Your task to perform on an android device: When is my next meeting? Image 0: 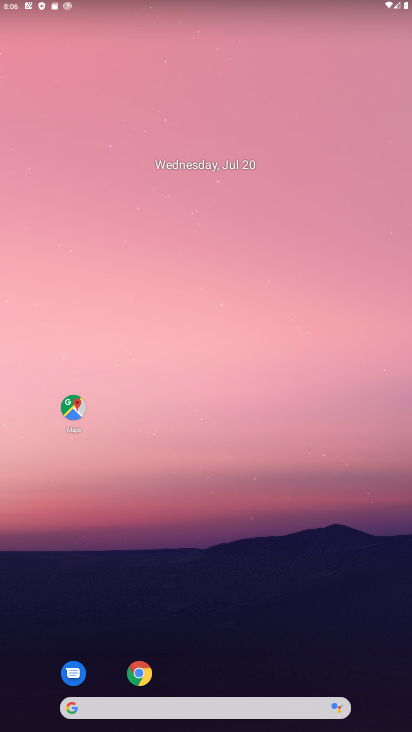
Step 0: drag from (187, 685) to (287, 204)
Your task to perform on an android device: When is my next meeting? Image 1: 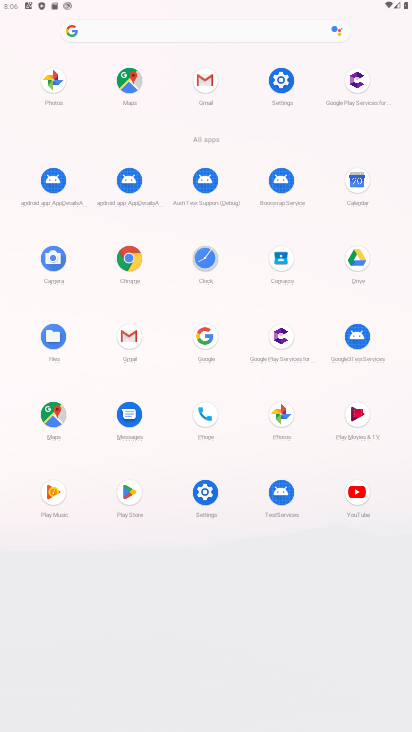
Step 1: drag from (238, 453) to (219, 295)
Your task to perform on an android device: When is my next meeting? Image 2: 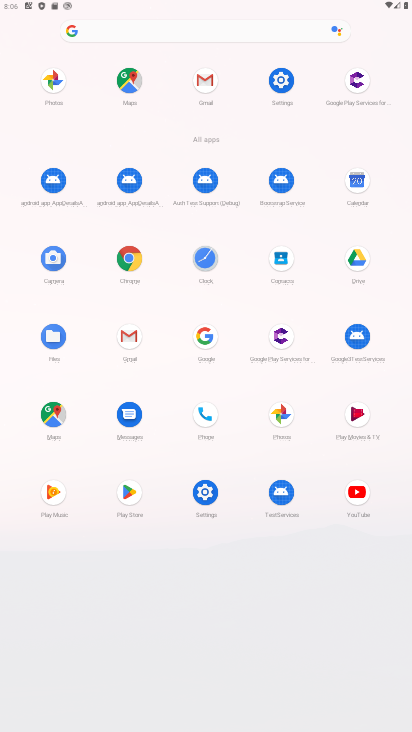
Step 2: click (356, 175)
Your task to perform on an android device: When is my next meeting? Image 3: 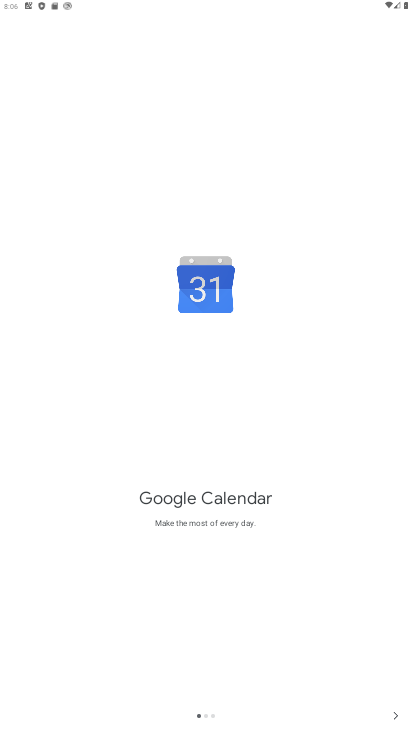
Step 3: drag from (249, 527) to (250, 295)
Your task to perform on an android device: When is my next meeting? Image 4: 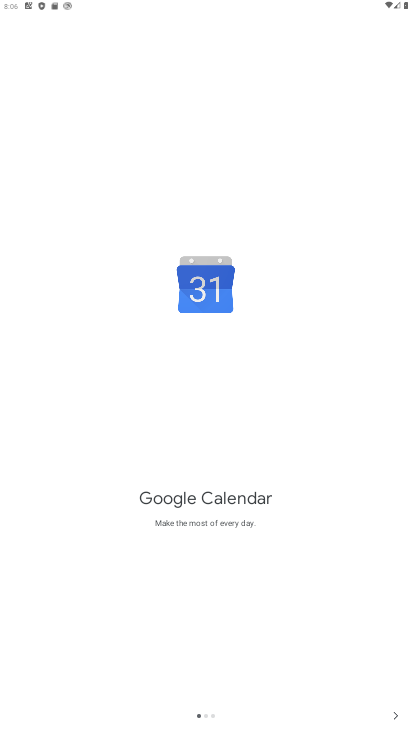
Step 4: drag from (254, 585) to (246, 382)
Your task to perform on an android device: When is my next meeting? Image 5: 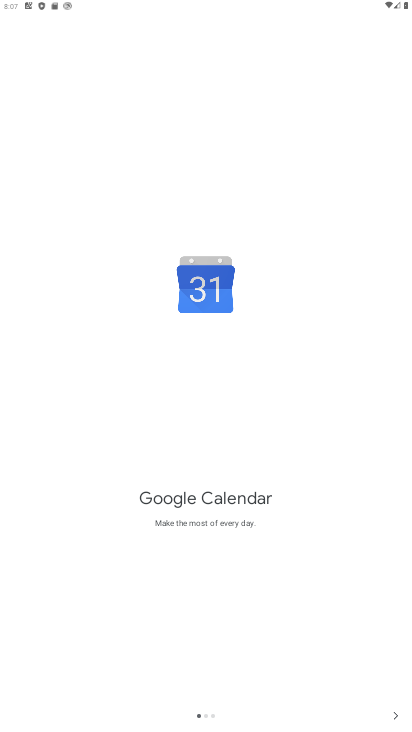
Step 5: drag from (225, 487) to (238, 341)
Your task to perform on an android device: When is my next meeting? Image 6: 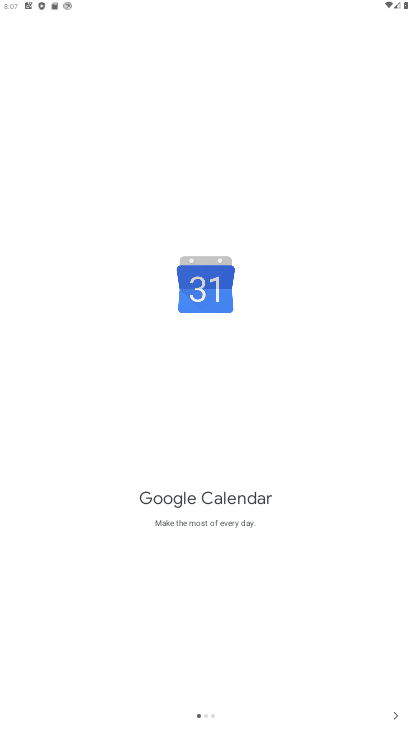
Step 6: drag from (218, 597) to (238, 355)
Your task to perform on an android device: When is my next meeting? Image 7: 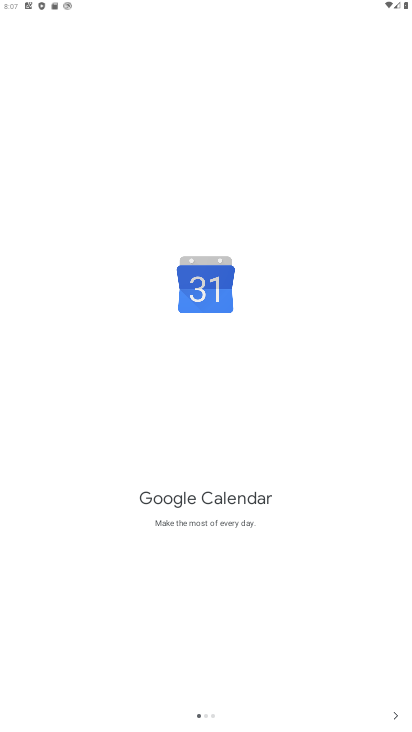
Step 7: click (272, 369)
Your task to perform on an android device: When is my next meeting? Image 8: 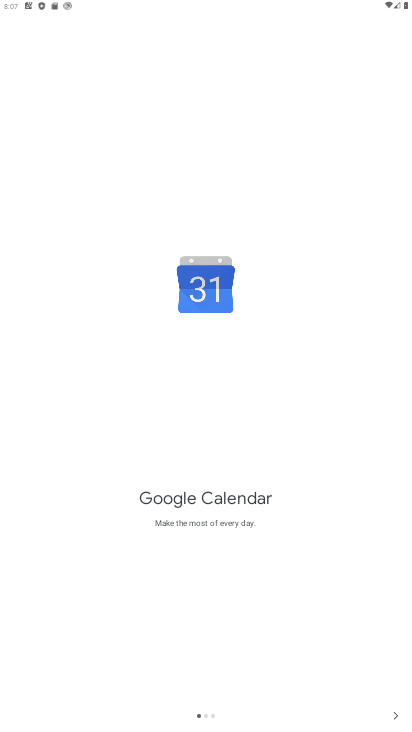
Step 8: click (391, 709)
Your task to perform on an android device: When is my next meeting? Image 9: 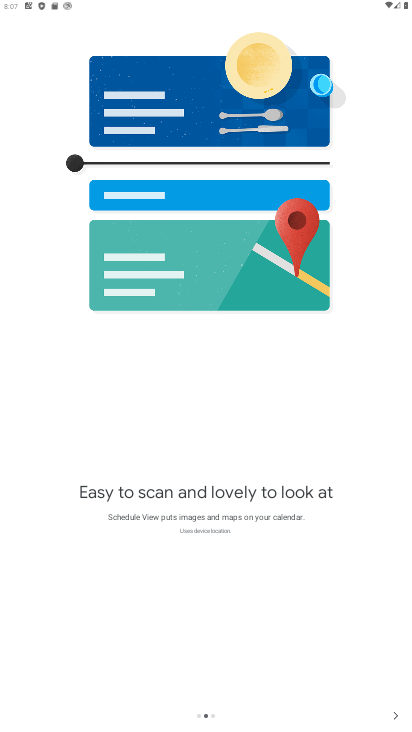
Step 9: click (396, 711)
Your task to perform on an android device: When is my next meeting? Image 10: 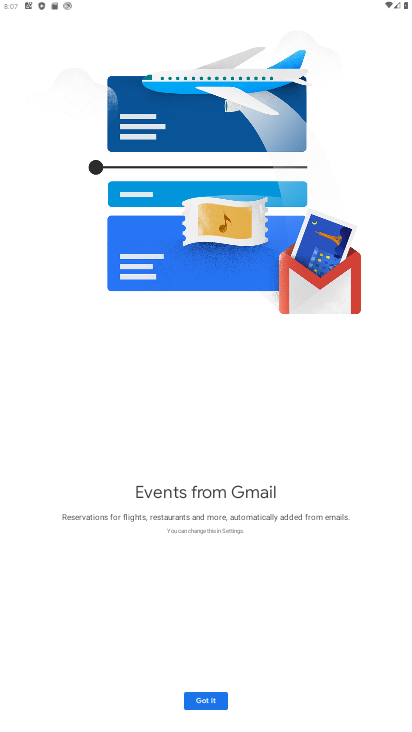
Step 10: click (398, 712)
Your task to perform on an android device: When is my next meeting? Image 11: 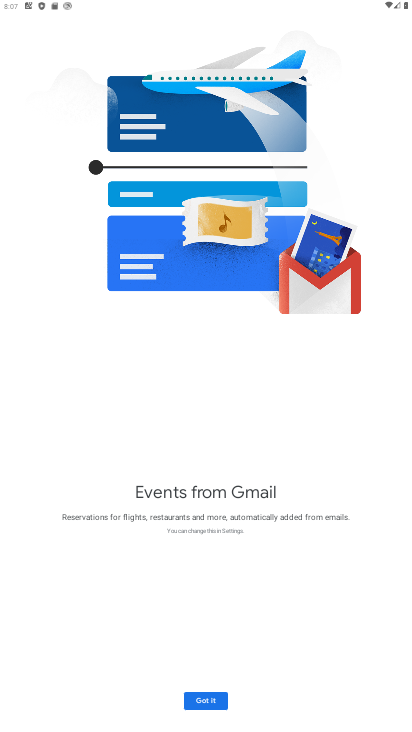
Step 11: click (398, 712)
Your task to perform on an android device: When is my next meeting? Image 12: 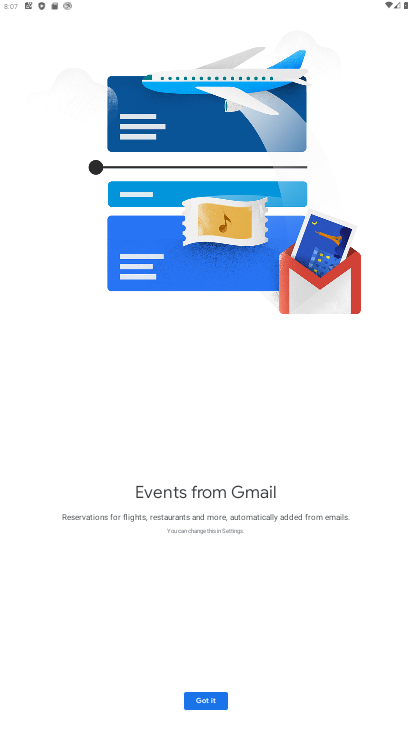
Step 12: click (200, 700)
Your task to perform on an android device: When is my next meeting? Image 13: 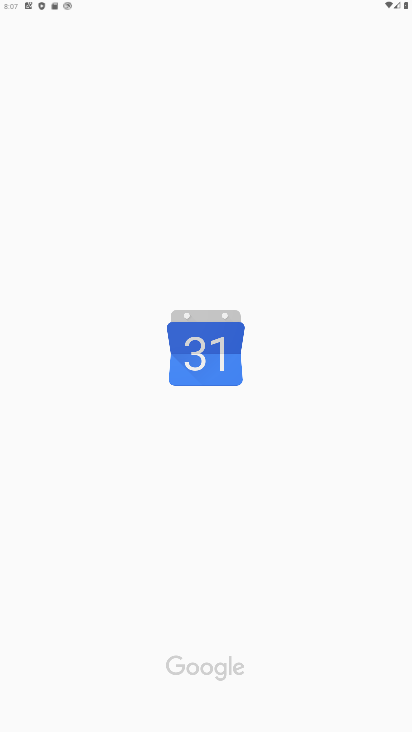
Step 13: drag from (267, 624) to (277, 386)
Your task to perform on an android device: When is my next meeting? Image 14: 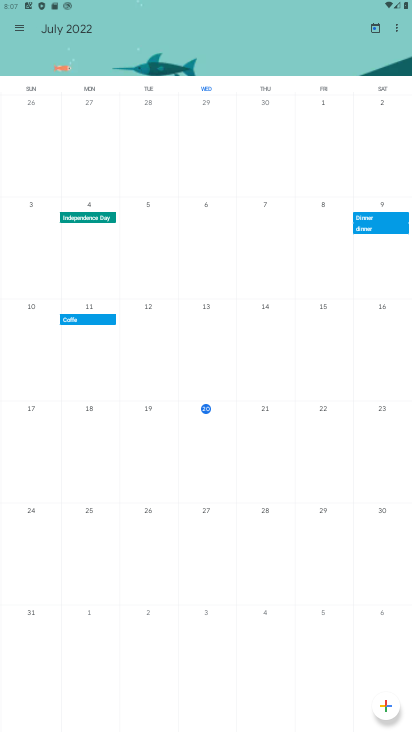
Step 14: drag from (283, 561) to (288, 435)
Your task to perform on an android device: When is my next meeting? Image 15: 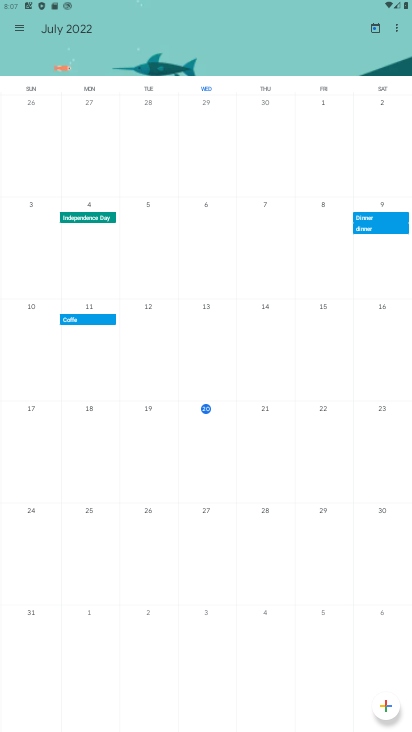
Step 15: click (379, 239)
Your task to perform on an android device: When is my next meeting? Image 16: 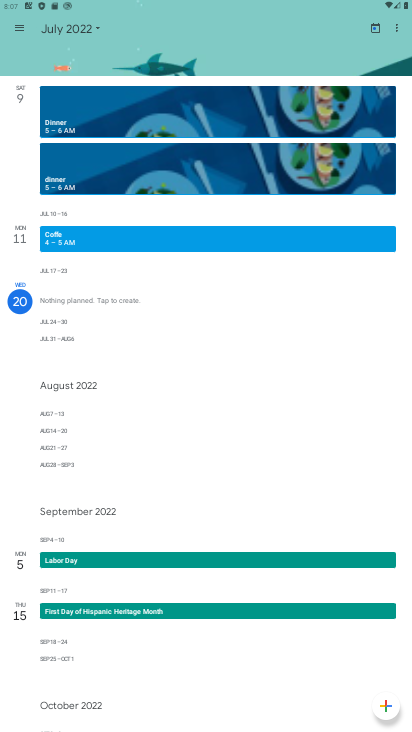
Step 16: click (367, 33)
Your task to perform on an android device: When is my next meeting? Image 17: 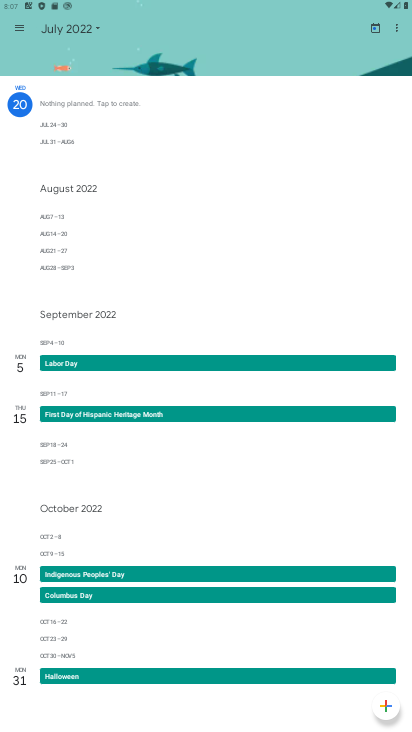
Step 17: click (375, 27)
Your task to perform on an android device: When is my next meeting? Image 18: 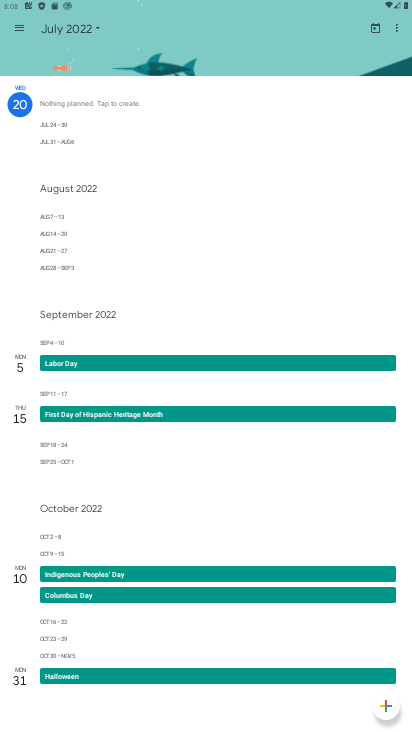
Step 18: click (376, 25)
Your task to perform on an android device: When is my next meeting? Image 19: 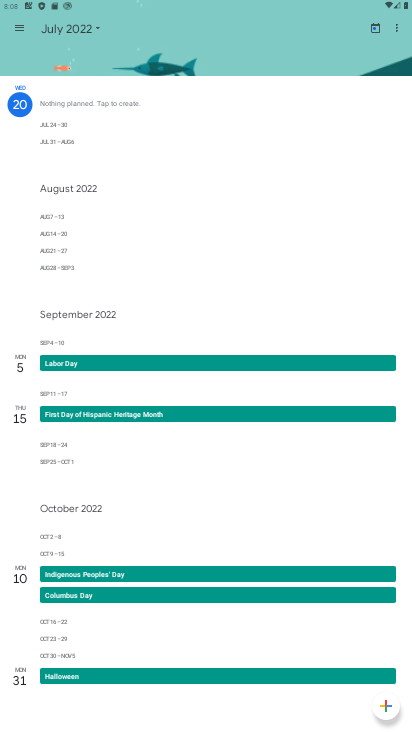
Step 19: click (377, 24)
Your task to perform on an android device: When is my next meeting? Image 20: 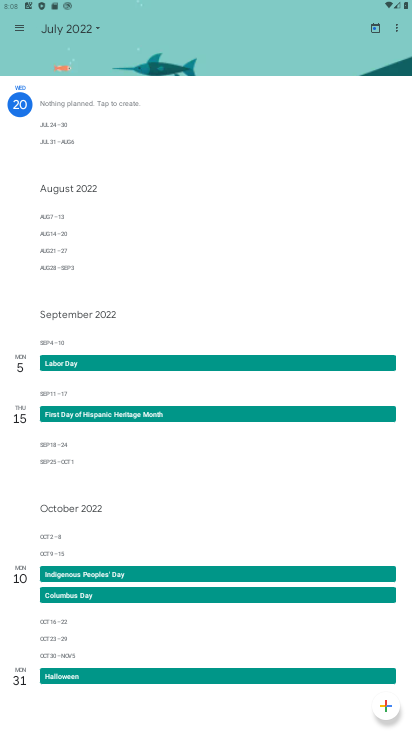
Step 20: click (375, 26)
Your task to perform on an android device: When is my next meeting? Image 21: 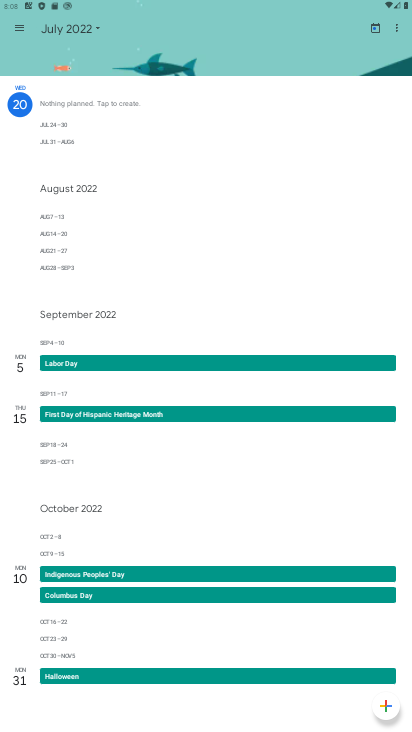
Step 21: click (63, 32)
Your task to perform on an android device: When is my next meeting? Image 22: 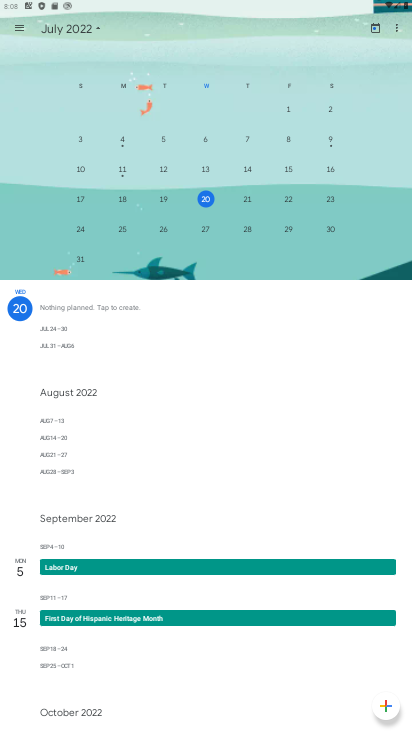
Step 22: drag from (319, 229) to (49, 229)
Your task to perform on an android device: When is my next meeting? Image 23: 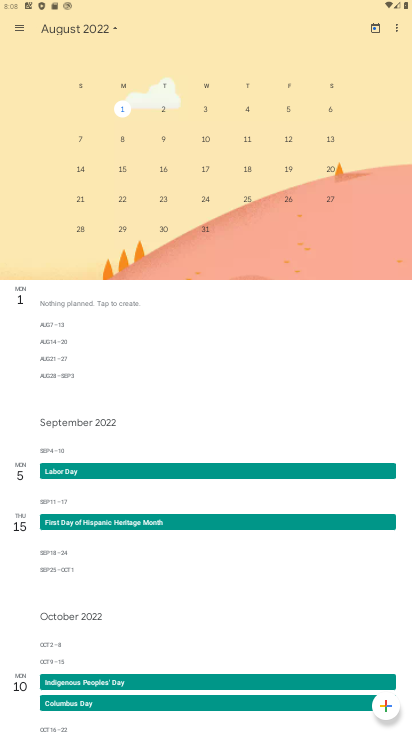
Step 23: drag from (309, 219) to (85, 236)
Your task to perform on an android device: When is my next meeting? Image 24: 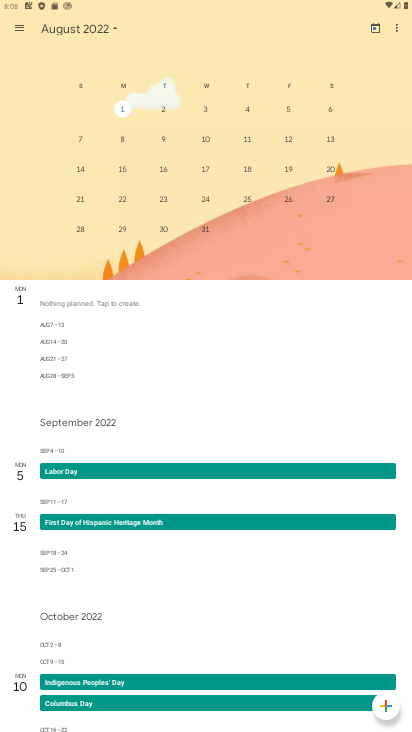
Step 24: drag from (97, 200) to (303, 188)
Your task to perform on an android device: When is my next meeting? Image 25: 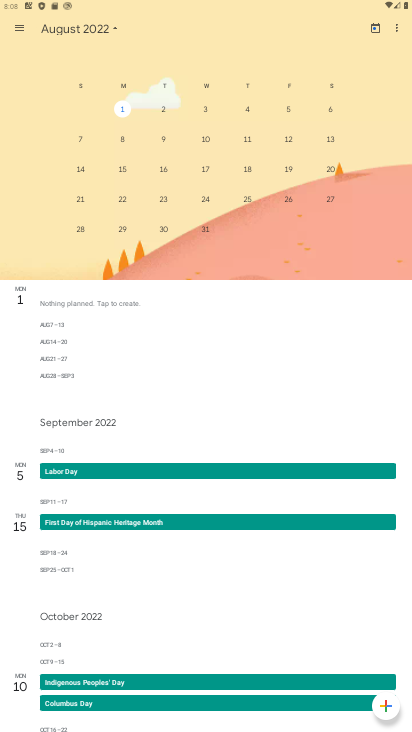
Step 25: drag from (94, 210) to (365, 183)
Your task to perform on an android device: When is my next meeting? Image 26: 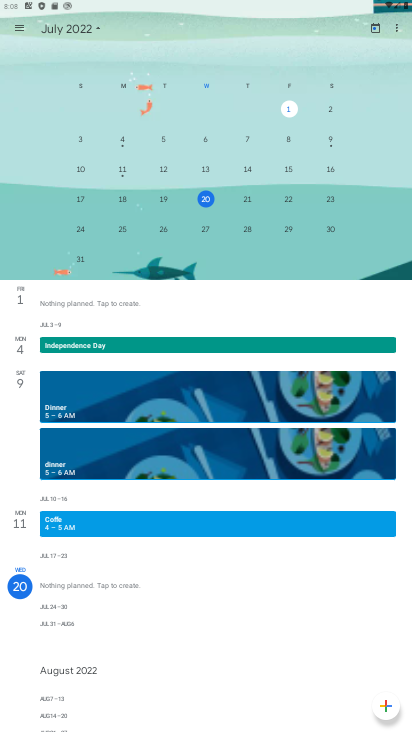
Step 26: click (209, 193)
Your task to perform on an android device: When is my next meeting? Image 27: 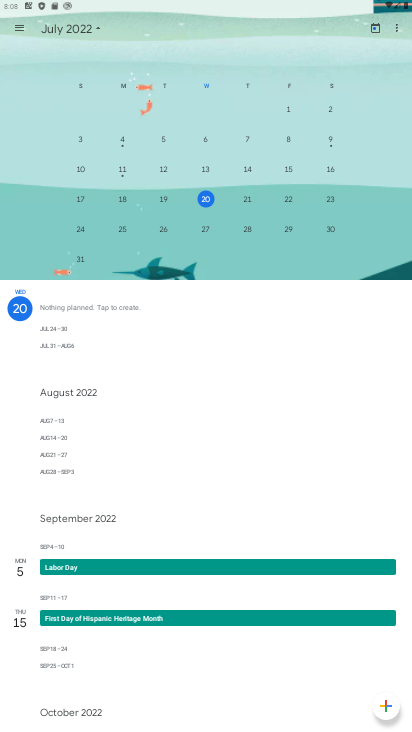
Step 27: task complete